Your task to perform on an android device: Search for bose soundlink on ebay.com, select the first entry, and add it to the cart. Image 0: 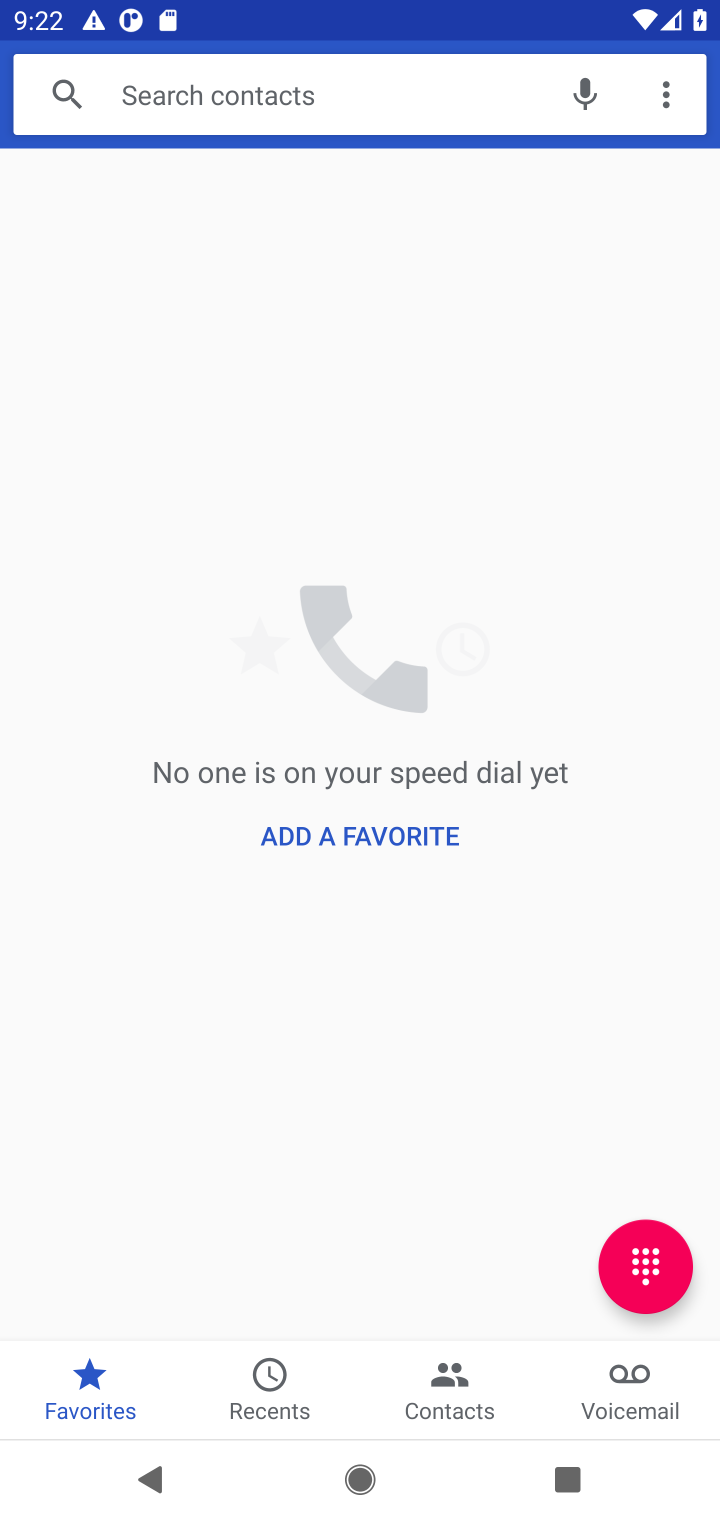
Step 0: press home button
Your task to perform on an android device: Search for bose soundlink on ebay.com, select the first entry, and add it to the cart. Image 1: 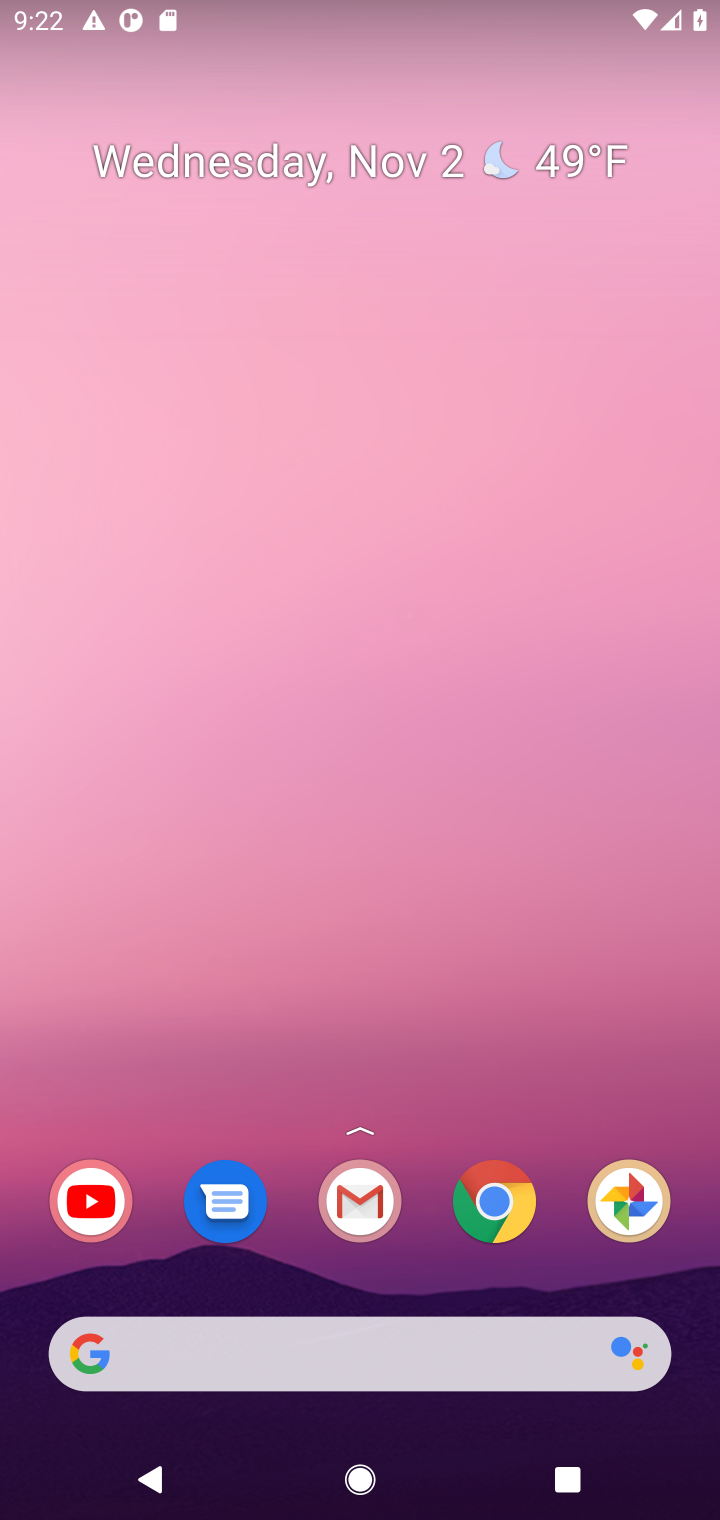
Step 1: drag from (414, 1173) to (375, 304)
Your task to perform on an android device: Search for bose soundlink on ebay.com, select the first entry, and add it to the cart. Image 2: 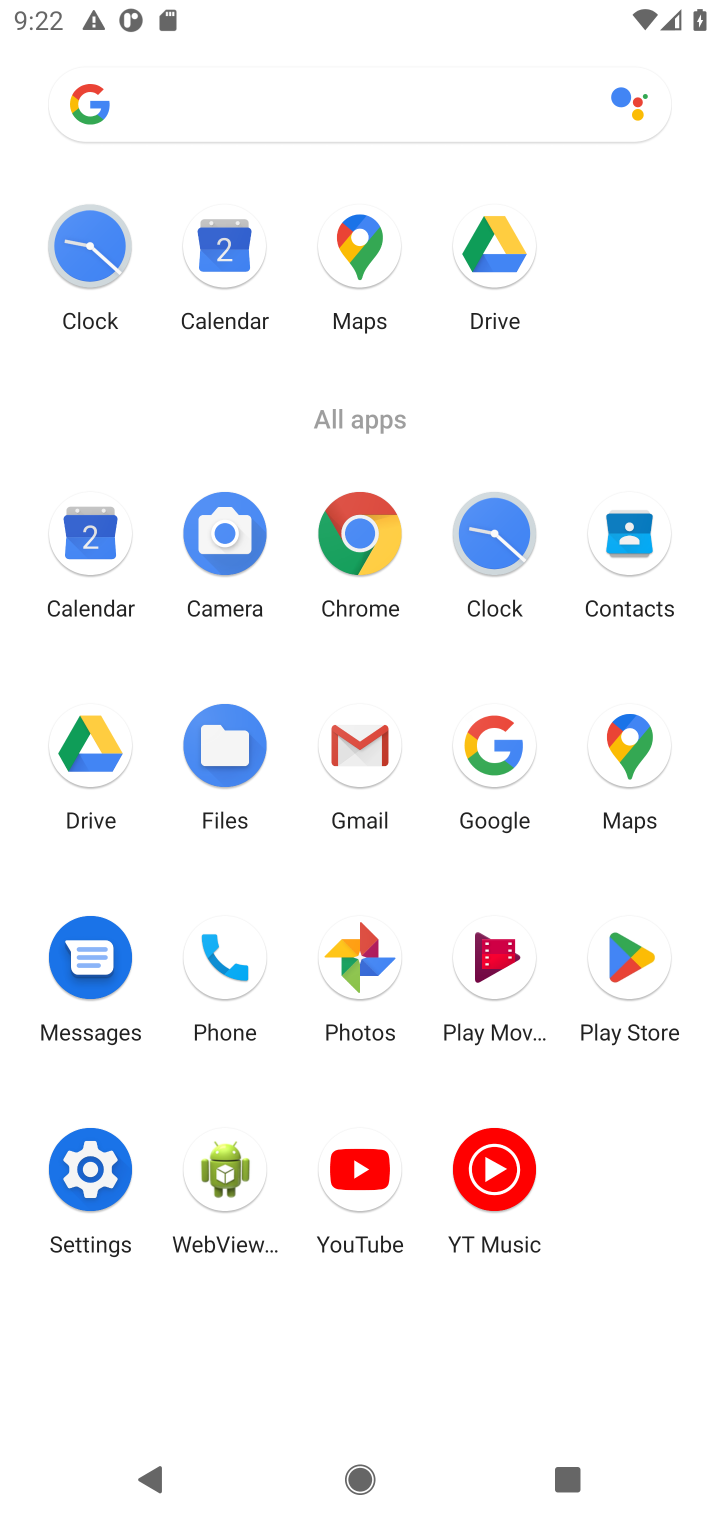
Step 2: click (369, 534)
Your task to perform on an android device: Search for bose soundlink on ebay.com, select the first entry, and add it to the cart. Image 3: 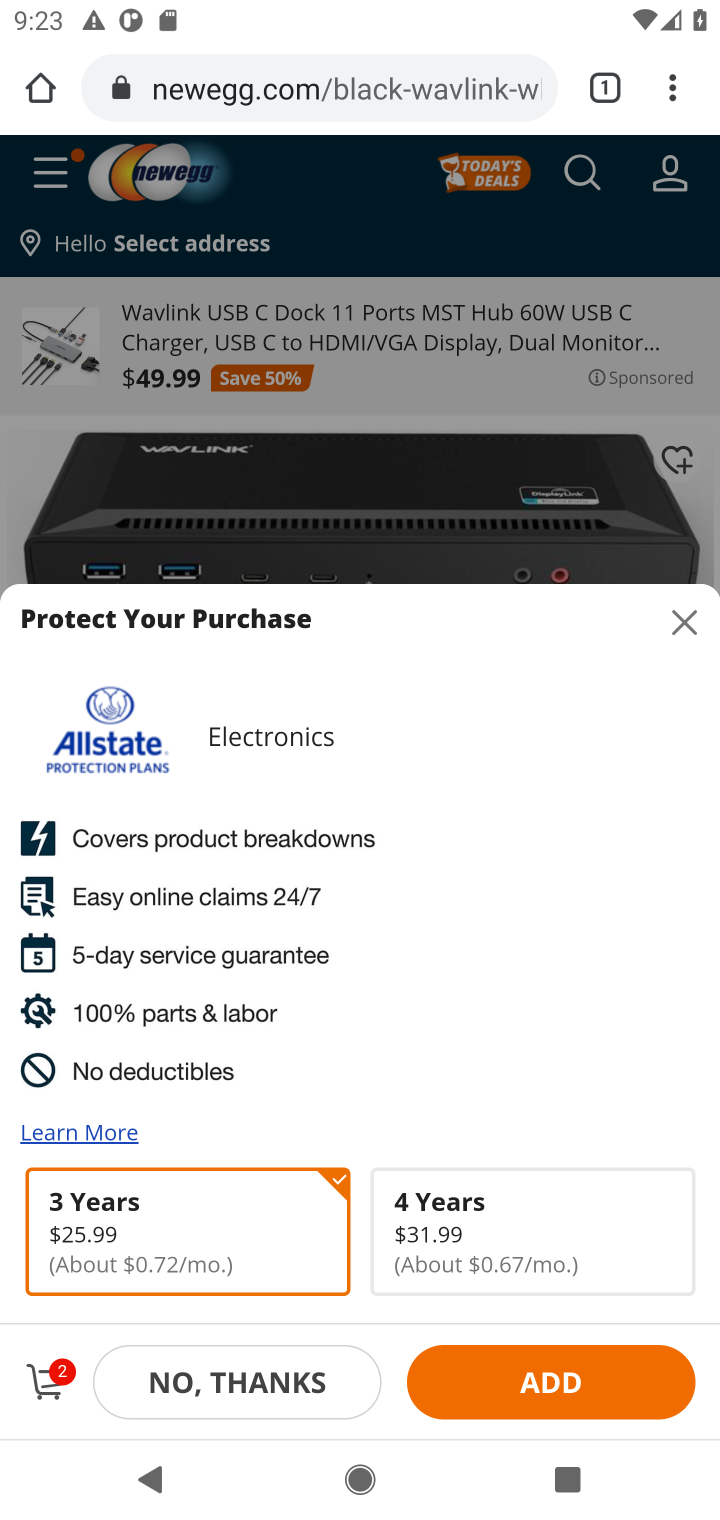
Step 3: click (397, 96)
Your task to perform on an android device: Search for bose soundlink on ebay.com, select the first entry, and add it to the cart. Image 4: 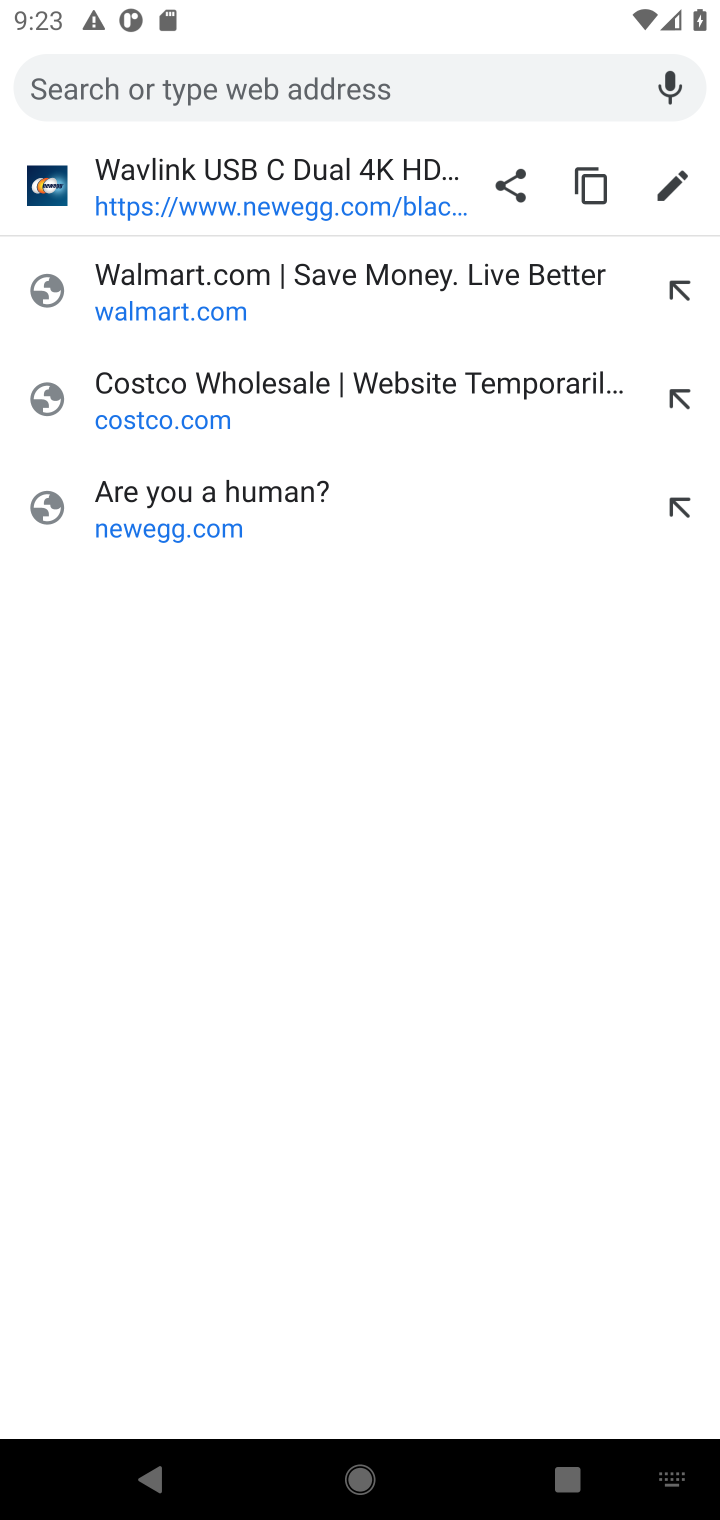
Step 4: type "ebay.com"
Your task to perform on an android device: Search for bose soundlink on ebay.com, select the first entry, and add it to the cart. Image 5: 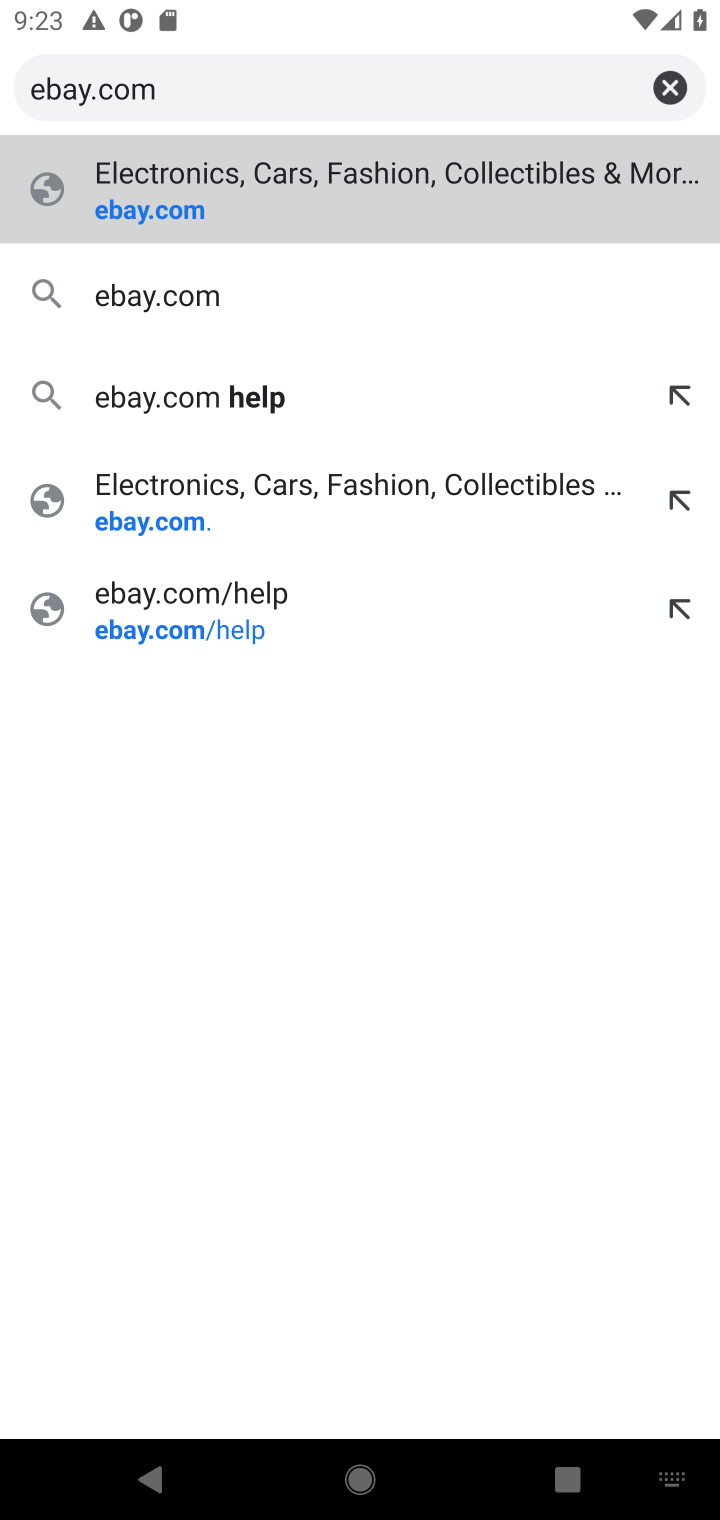
Step 5: click (282, 196)
Your task to perform on an android device: Search for bose soundlink on ebay.com, select the first entry, and add it to the cart. Image 6: 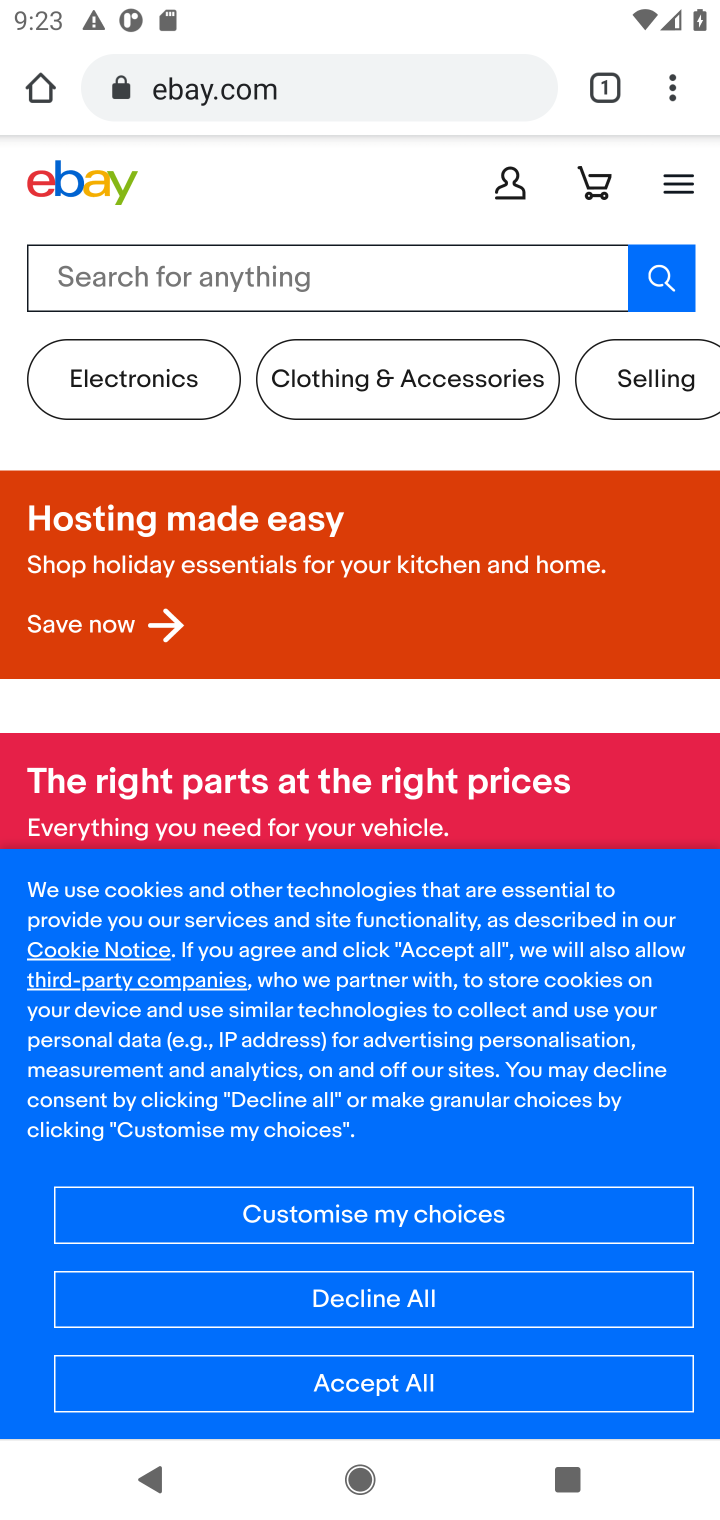
Step 6: click (451, 269)
Your task to perform on an android device: Search for bose soundlink on ebay.com, select the first entry, and add it to the cart. Image 7: 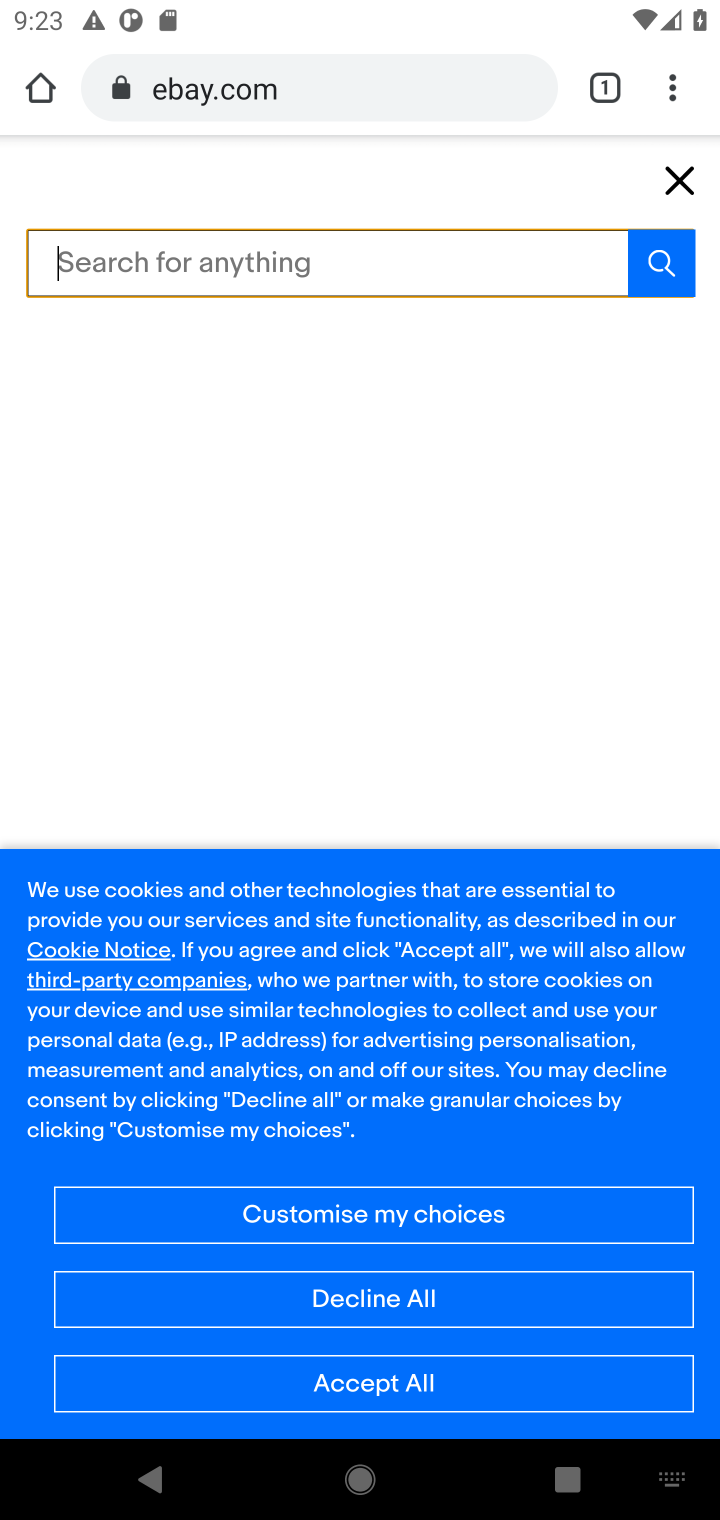
Step 7: type "bose soundlink"
Your task to perform on an android device: Search for bose soundlink on ebay.com, select the first entry, and add it to the cart. Image 8: 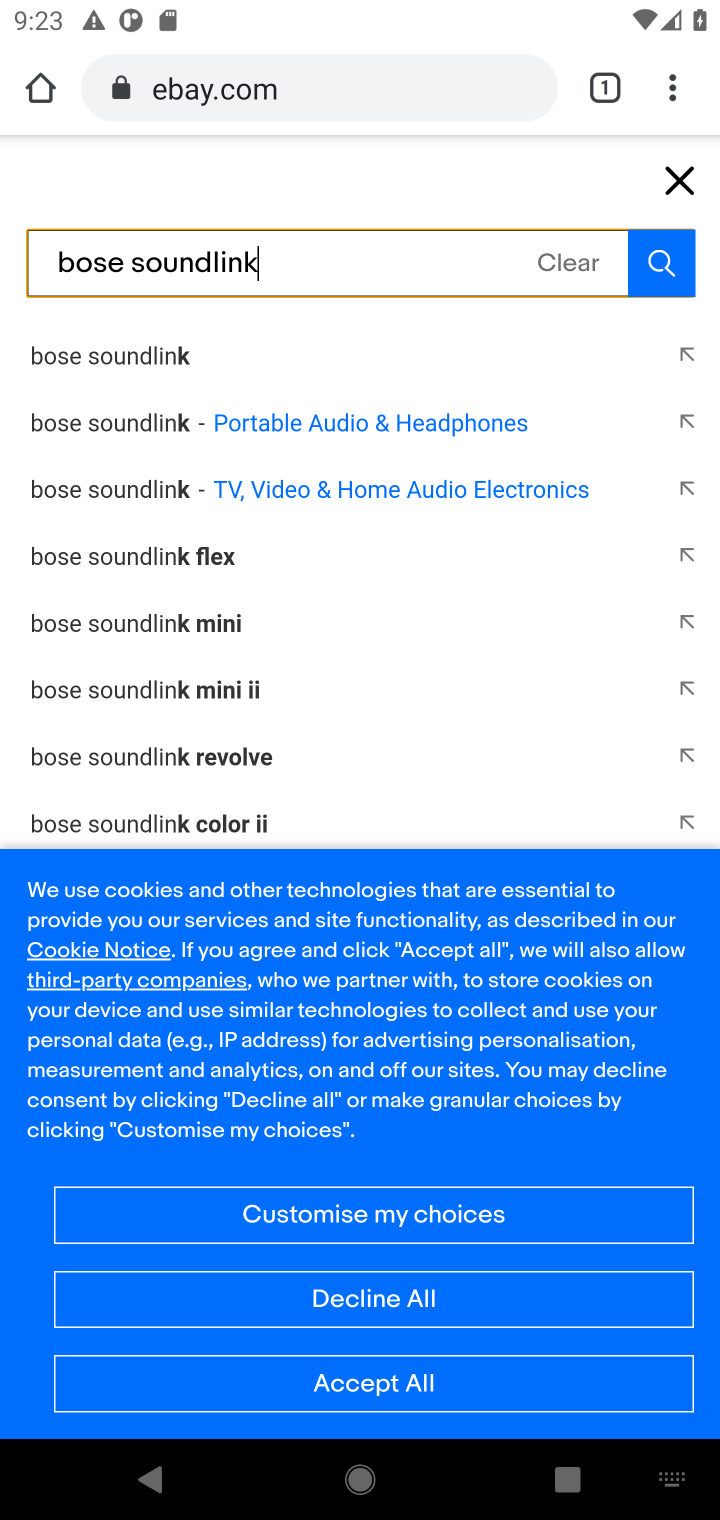
Step 8: press enter
Your task to perform on an android device: Search for bose soundlink on ebay.com, select the first entry, and add it to the cart. Image 9: 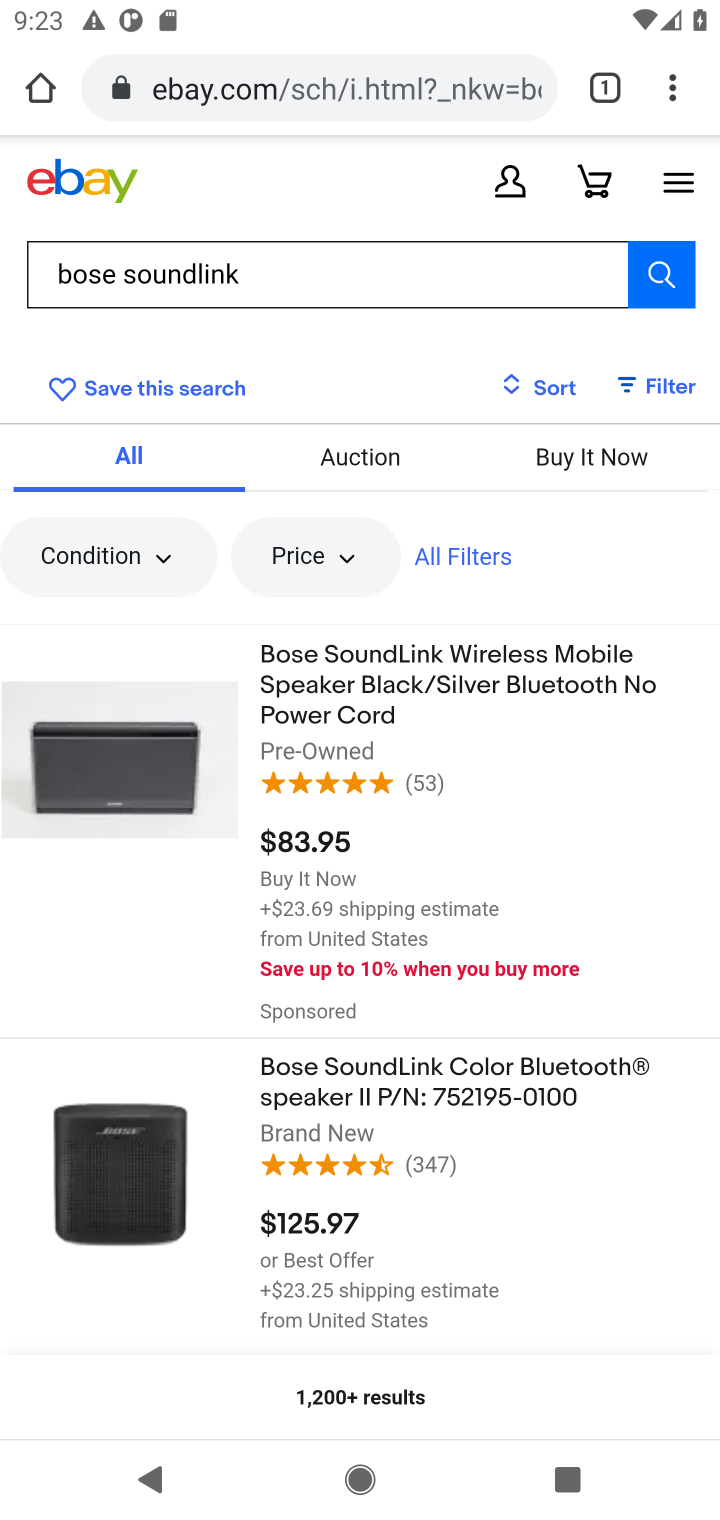
Step 9: click (329, 688)
Your task to perform on an android device: Search for bose soundlink on ebay.com, select the first entry, and add it to the cart. Image 10: 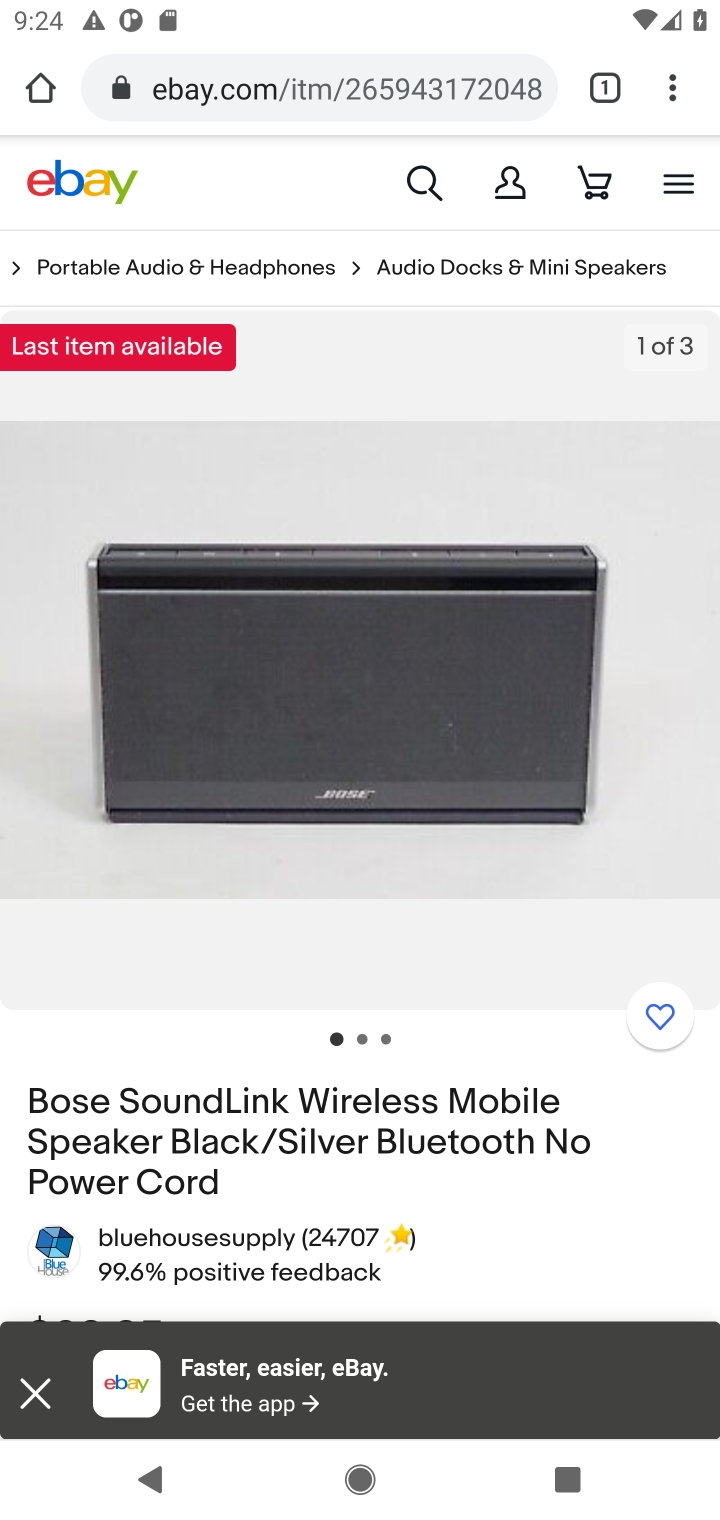
Step 10: drag from (416, 1184) to (433, 305)
Your task to perform on an android device: Search for bose soundlink on ebay.com, select the first entry, and add it to the cart. Image 11: 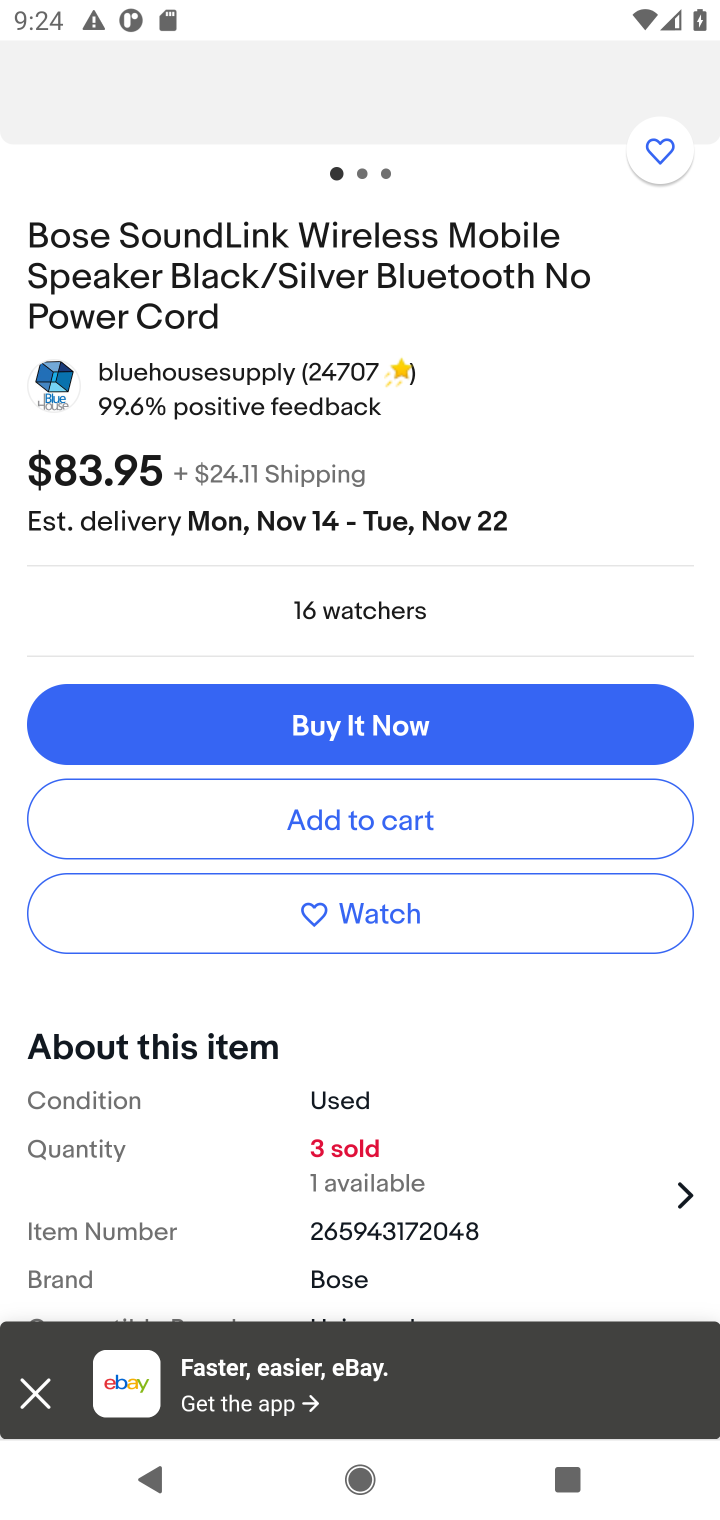
Step 11: click (406, 833)
Your task to perform on an android device: Search for bose soundlink on ebay.com, select the first entry, and add it to the cart. Image 12: 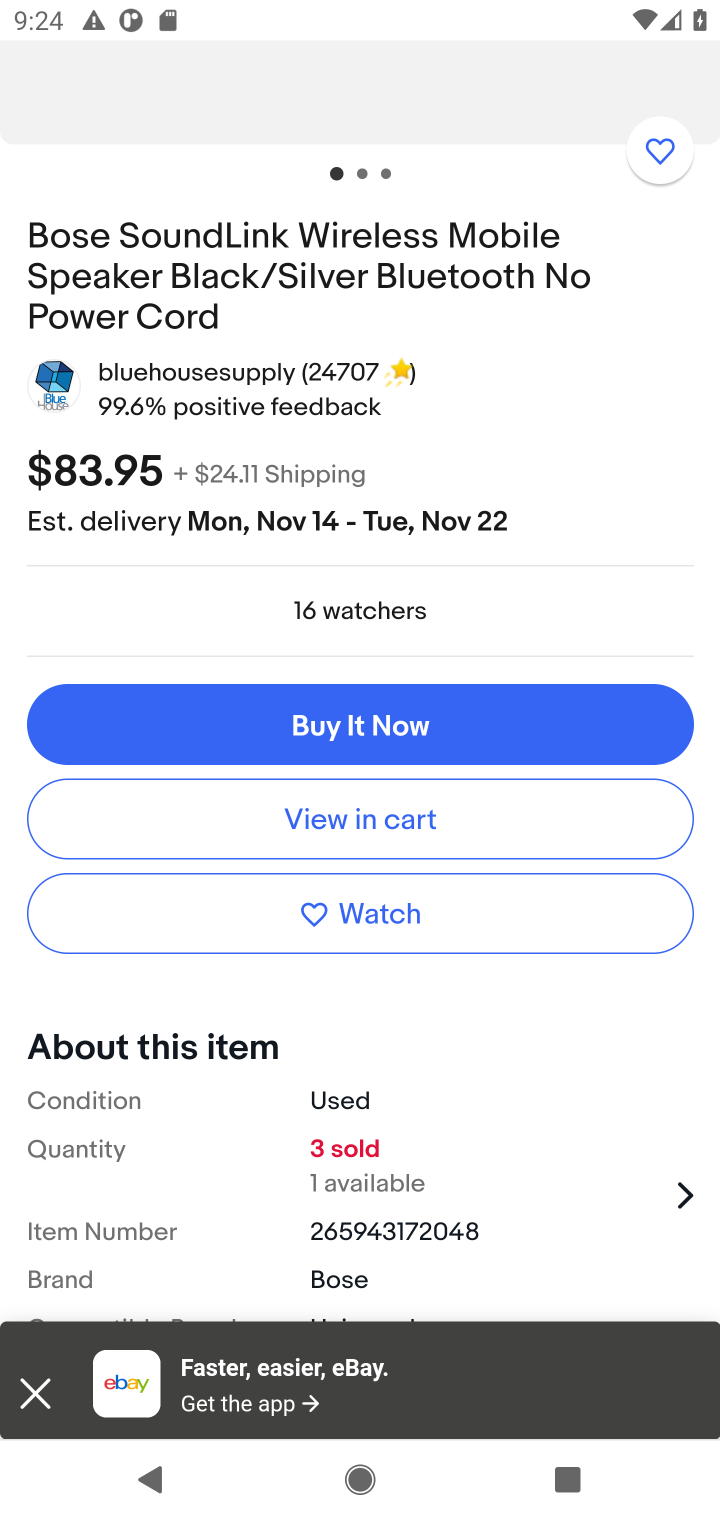
Step 12: task complete